Your task to perform on an android device: toggle notification dots Image 0: 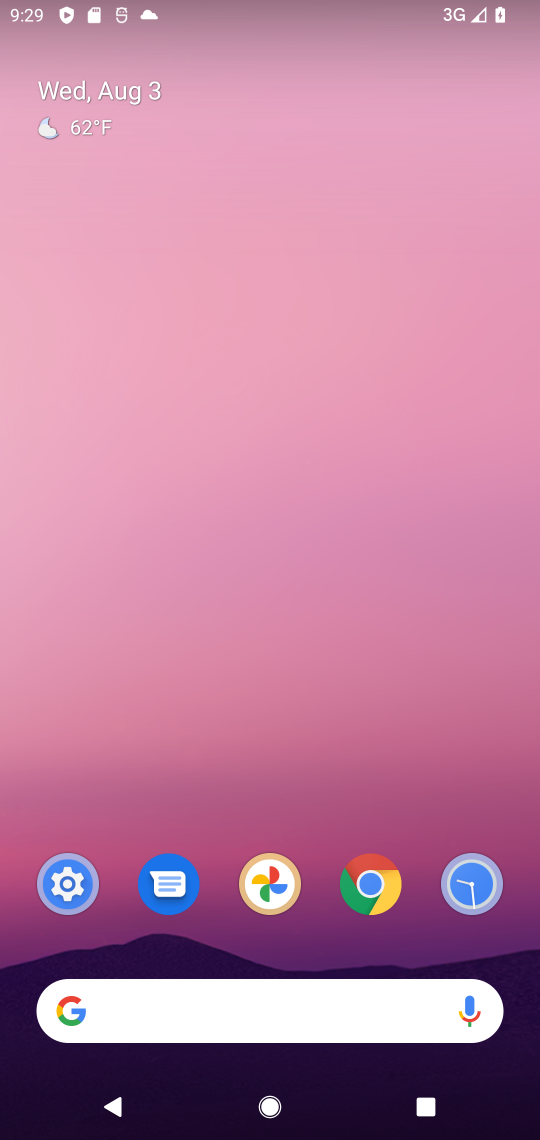
Step 0: drag from (216, 834) to (237, 417)
Your task to perform on an android device: toggle notification dots Image 1: 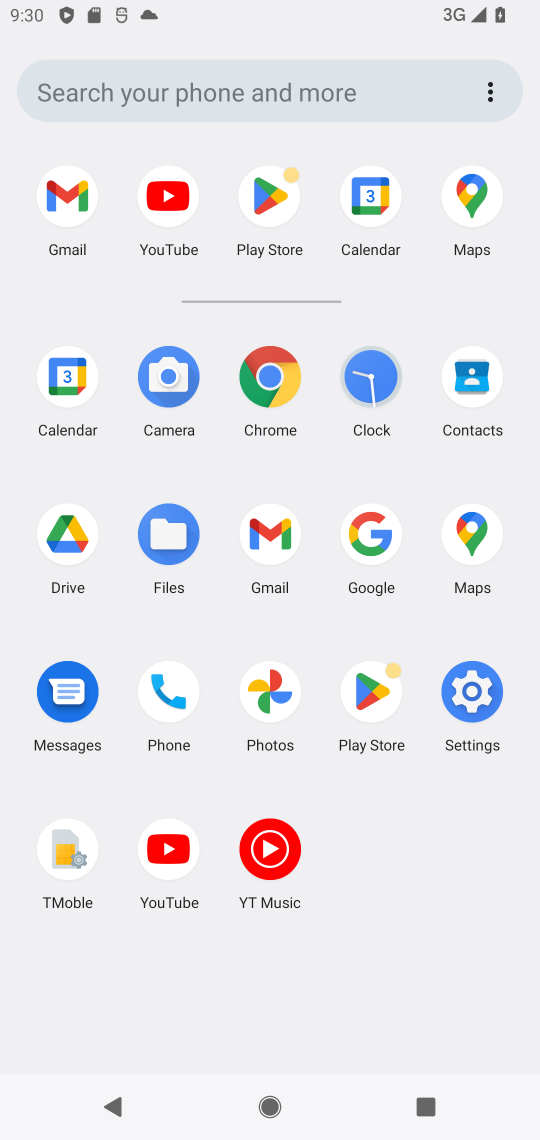
Step 1: click (483, 700)
Your task to perform on an android device: toggle notification dots Image 2: 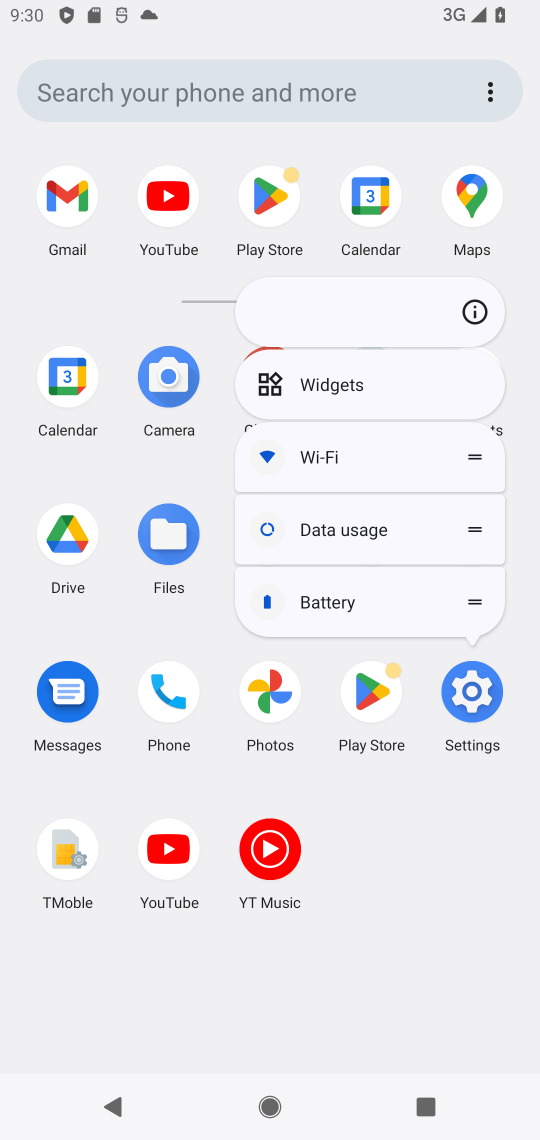
Step 2: click (470, 307)
Your task to perform on an android device: toggle notification dots Image 3: 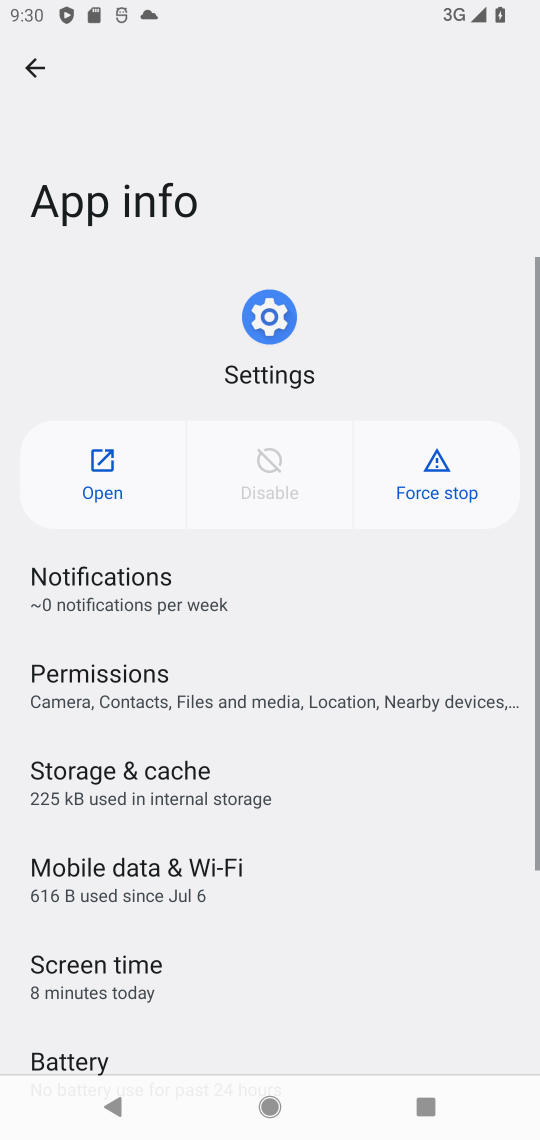
Step 3: click (95, 480)
Your task to perform on an android device: toggle notification dots Image 4: 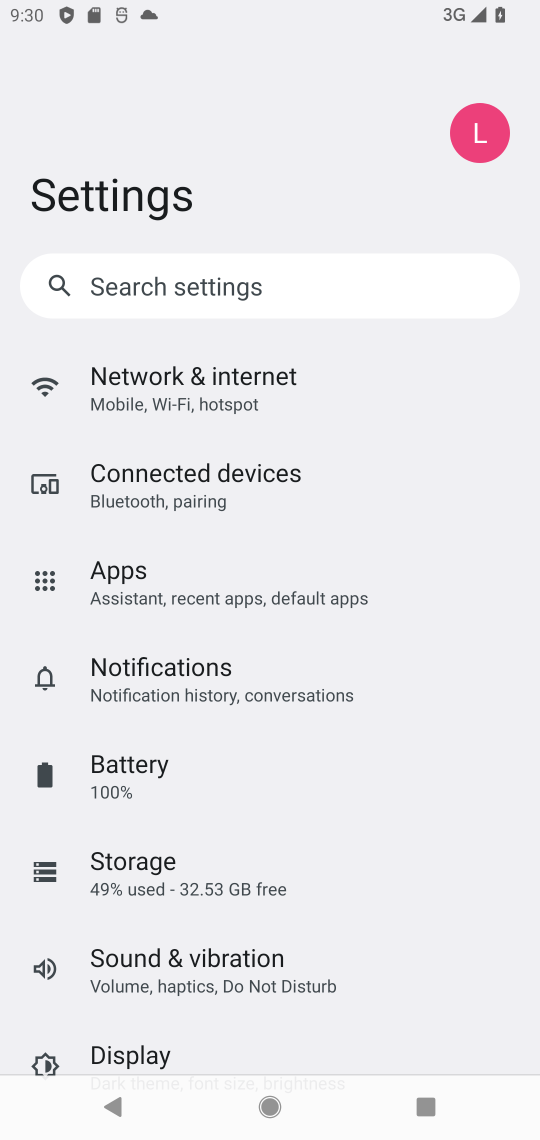
Step 4: click (233, 667)
Your task to perform on an android device: toggle notification dots Image 5: 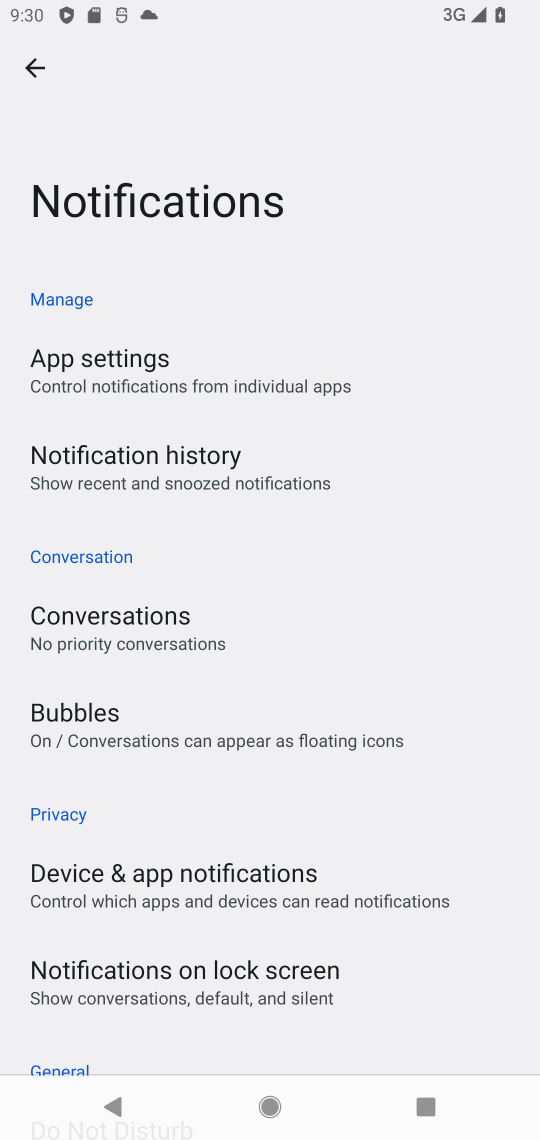
Step 5: drag from (190, 889) to (324, 463)
Your task to perform on an android device: toggle notification dots Image 6: 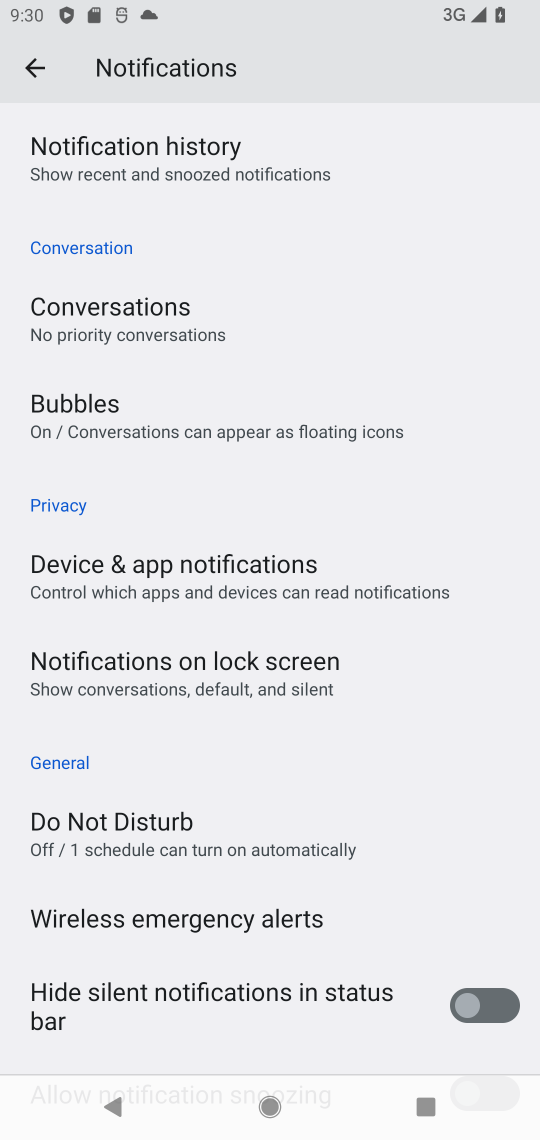
Step 6: drag from (283, 870) to (459, 355)
Your task to perform on an android device: toggle notification dots Image 7: 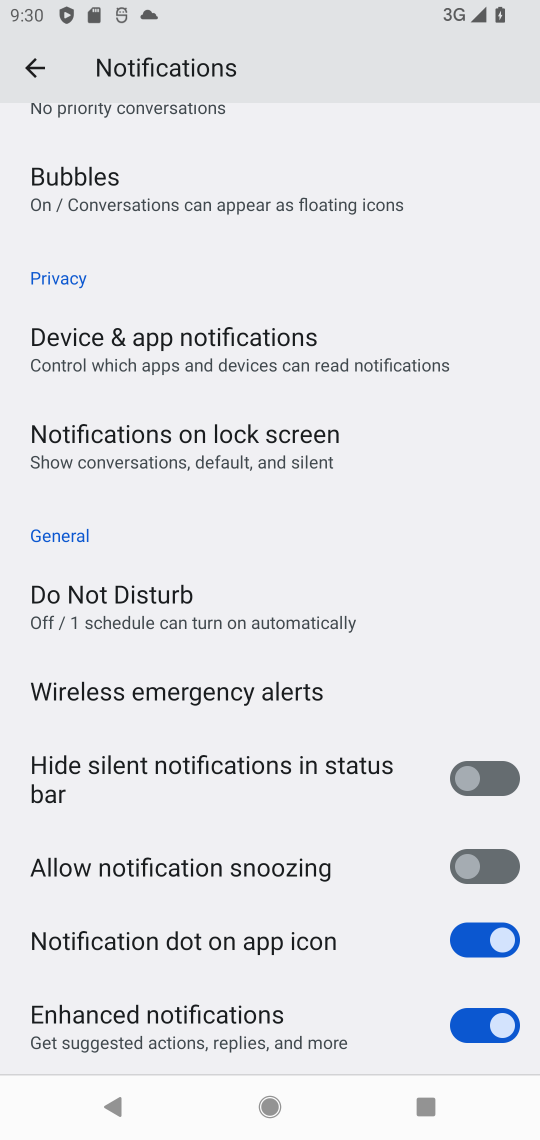
Step 7: drag from (332, 987) to (430, 582)
Your task to perform on an android device: toggle notification dots Image 8: 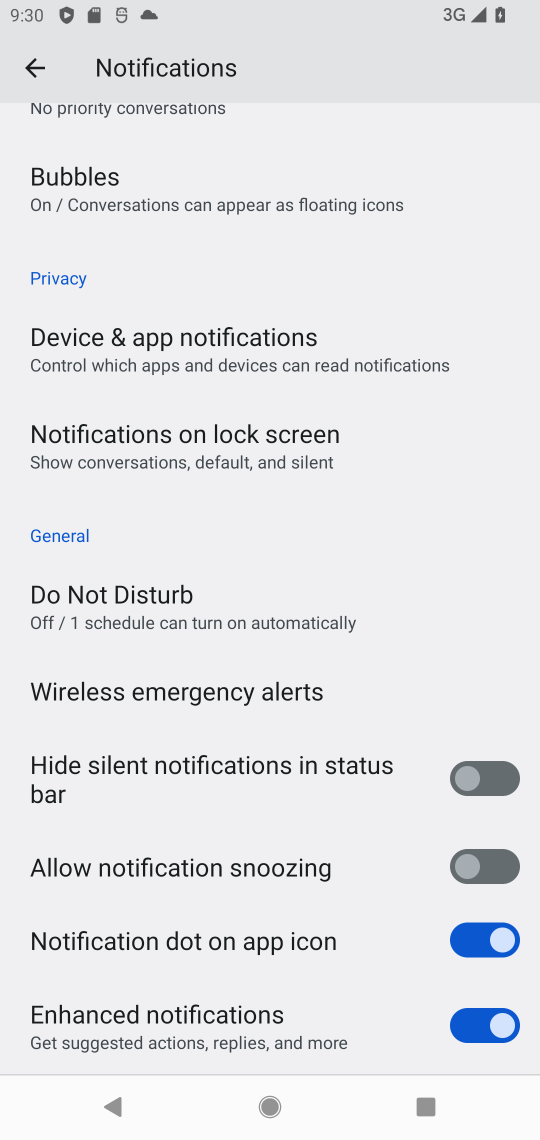
Step 8: click (487, 957)
Your task to perform on an android device: toggle notification dots Image 9: 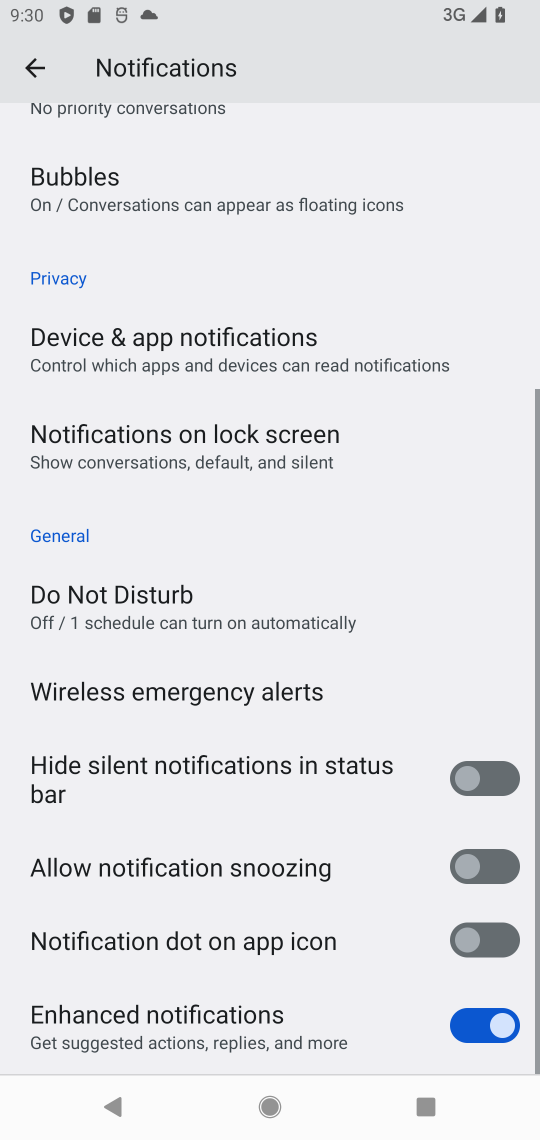
Step 9: task complete